Your task to perform on an android device: Open Chrome and go to settings Image 0: 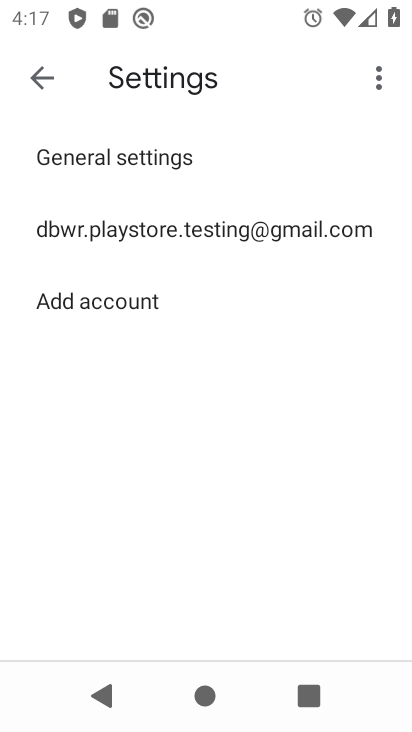
Step 0: press home button
Your task to perform on an android device: Open Chrome and go to settings Image 1: 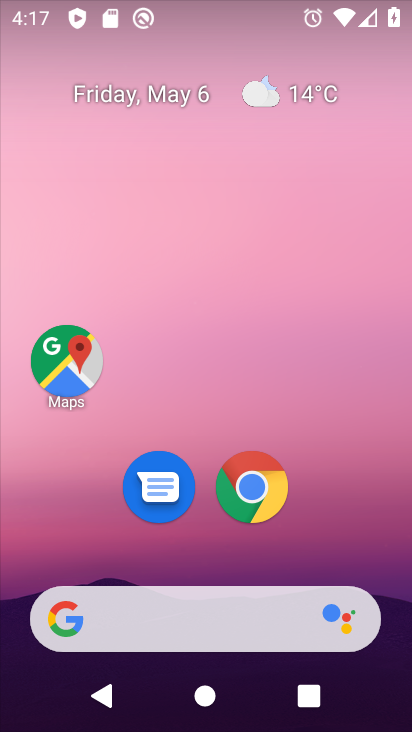
Step 1: click (239, 499)
Your task to perform on an android device: Open Chrome and go to settings Image 2: 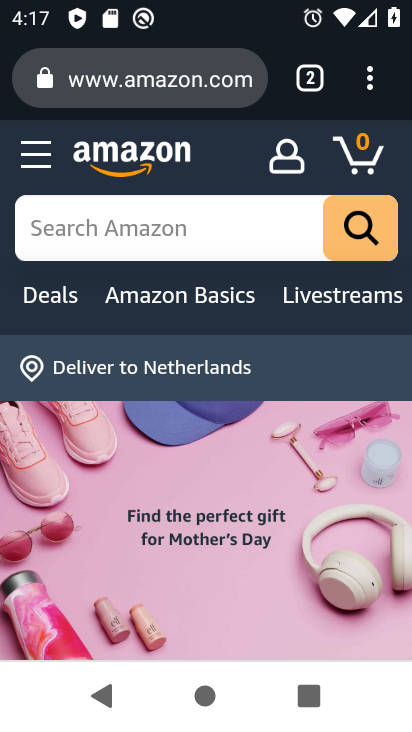
Step 2: click (374, 77)
Your task to perform on an android device: Open Chrome and go to settings Image 3: 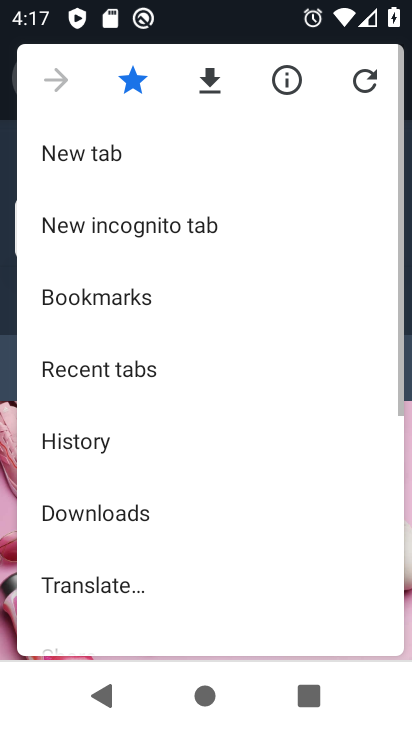
Step 3: drag from (252, 521) to (173, 26)
Your task to perform on an android device: Open Chrome and go to settings Image 4: 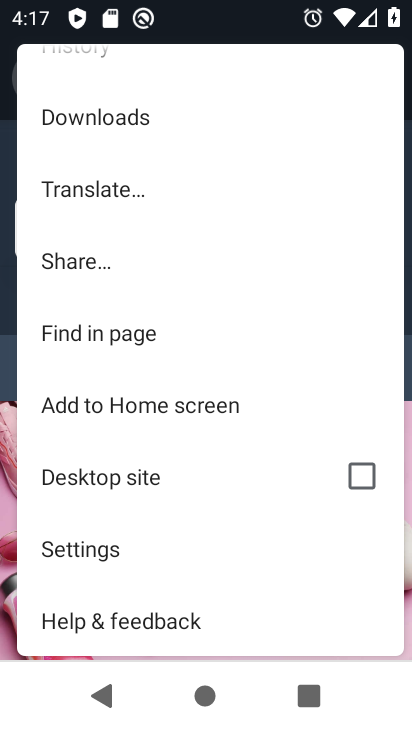
Step 4: click (113, 559)
Your task to perform on an android device: Open Chrome and go to settings Image 5: 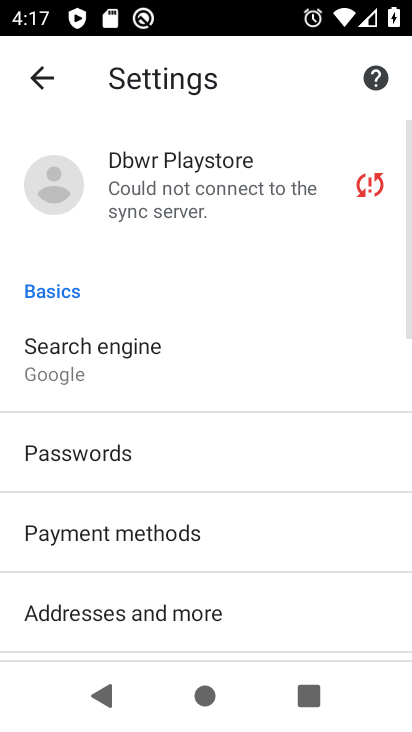
Step 5: task complete